Your task to perform on an android device: read, delete, or share a saved page in the chrome app Image 0: 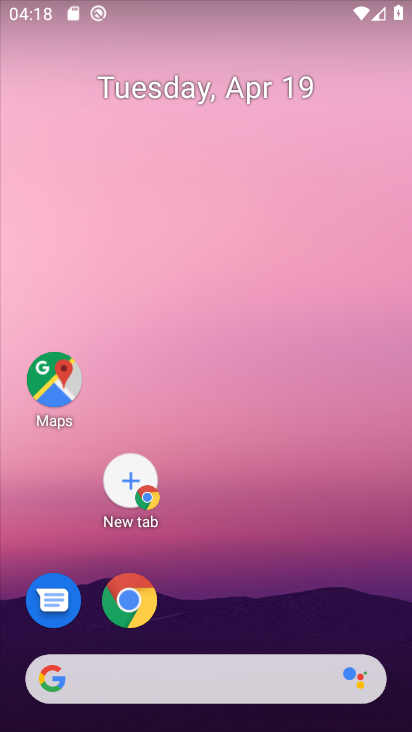
Step 0: click (124, 604)
Your task to perform on an android device: read, delete, or share a saved page in the chrome app Image 1: 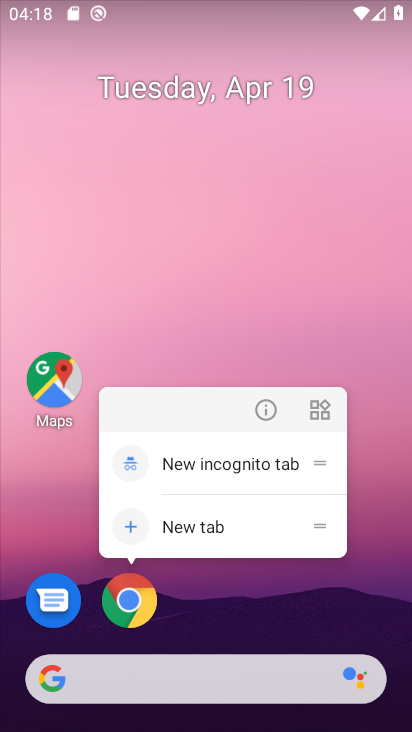
Step 1: click (220, 518)
Your task to perform on an android device: read, delete, or share a saved page in the chrome app Image 2: 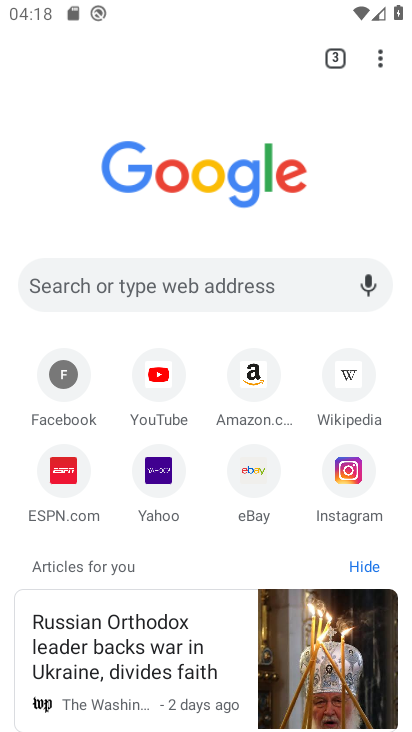
Step 2: click (384, 63)
Your task to perform on an android device: read, delete, or share a saved page in the chrome app Image 3: 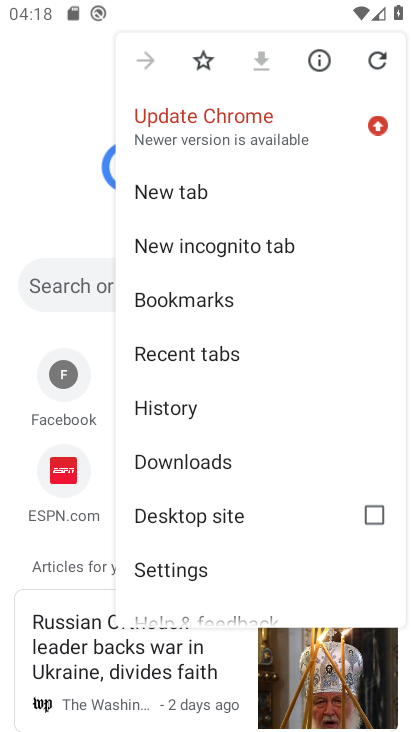
Step 3: click (233, 575)
Your task to perform on an android device: read, delete, or share a saved page in the chrome app Image 4: 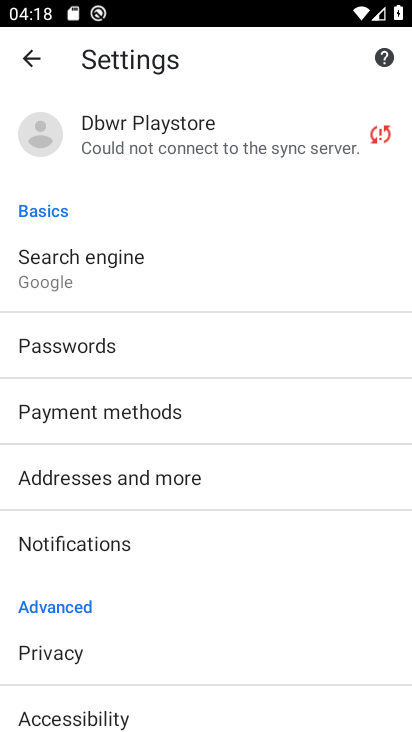
Step 4: click (35, 60)
Your task to perform on an android device: read, delete, or share a saved page in the chrome app Image 5: 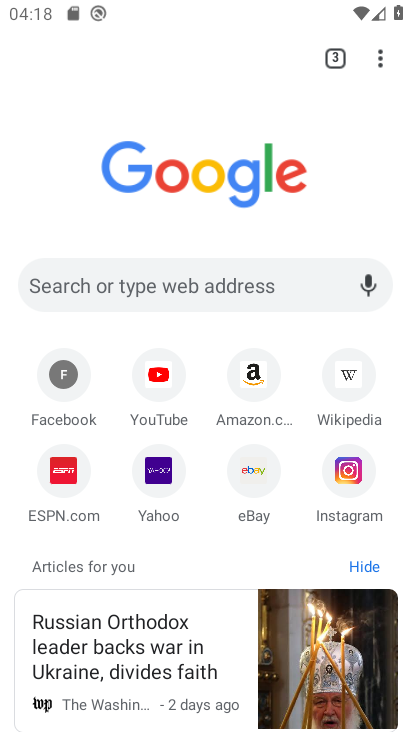
Step 5: click (371, 65)
Your task to perform on an android device: read, delete, or share a saved page in the chrome app Image 6: 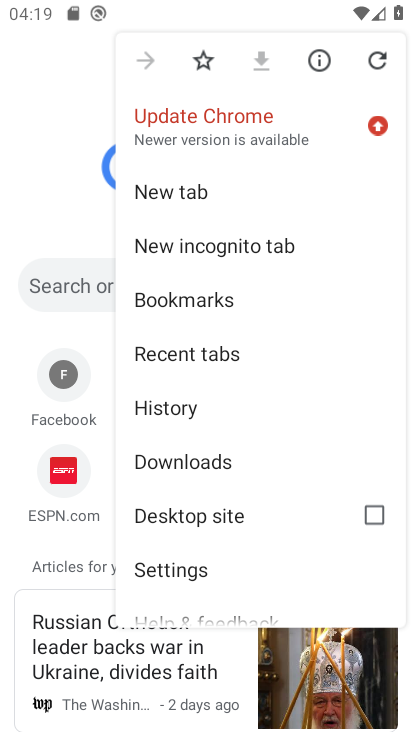
Step 6: click (172, 477)
Your task to perform on an android device: read, delete, or share a saved page in the chrome app Image 7: 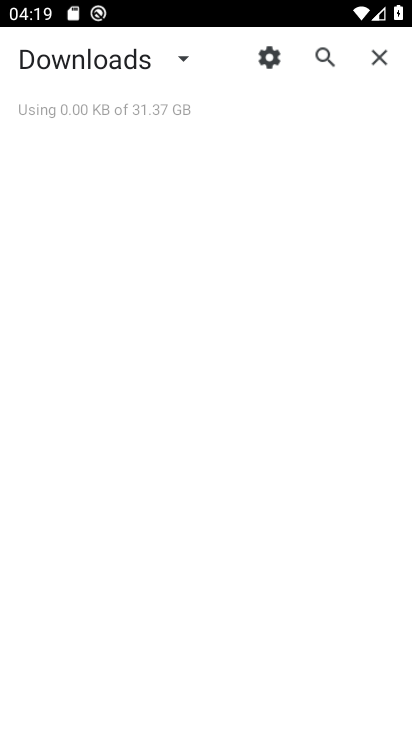
Step 7: task complete